Your task to perform on an android device: open a bookmark in the chrome app Image 0: 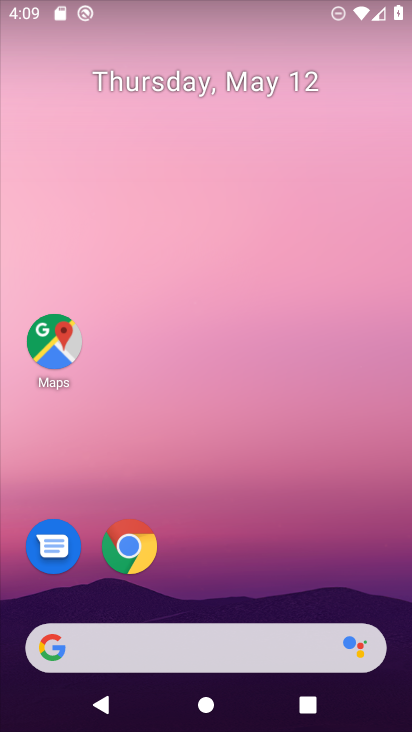
Step 0: drag from (227, 625) to (255, 216)
Your task to perform on an android device: open a bookmark in the chrome app Image 1: 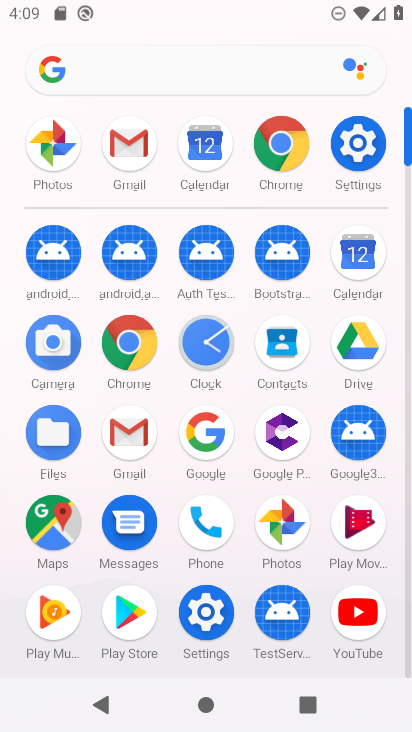
Step 1: click (281, 124)
Your task to perform on an android device: open a bookmark in the chrome app Image 2: 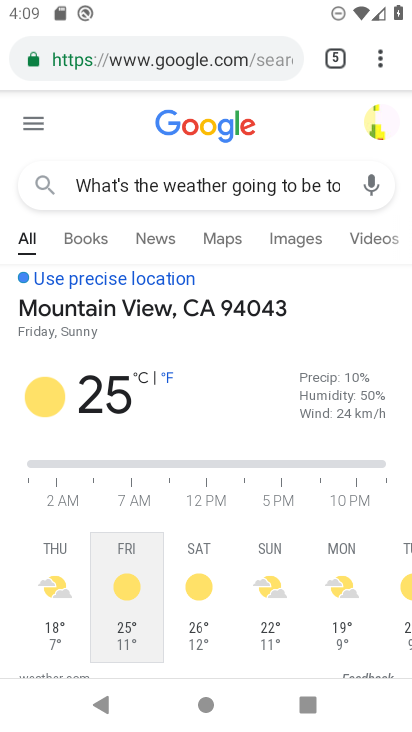
Step 2: click (367, 57)
Your task to perform on an android device: open a bookmark in the chrome app Image 3: 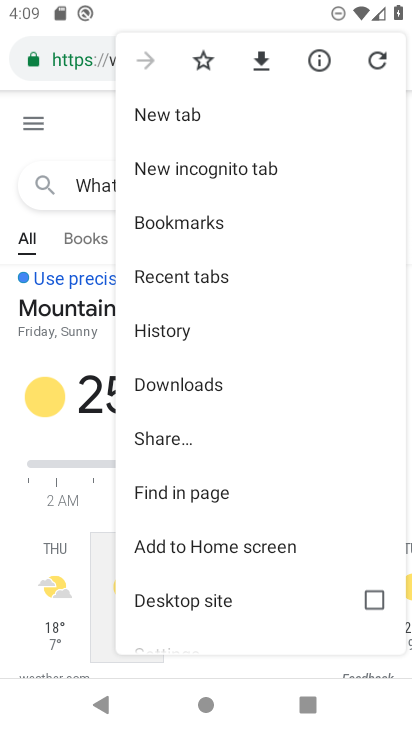
Step 3: click (191, 230)
Your task to perform on an android device: open a bookmark in the chrome app Image 4: 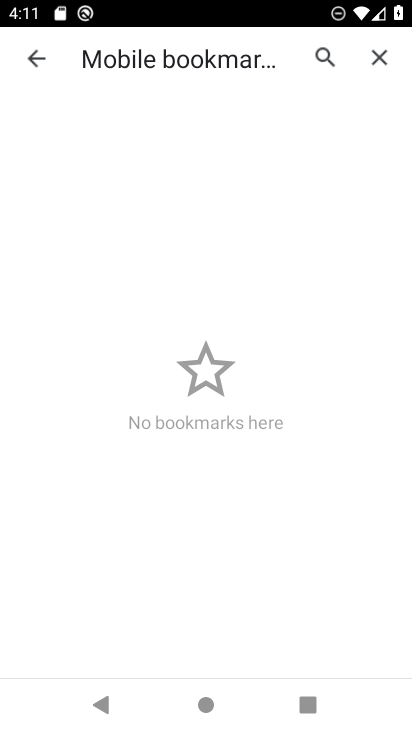
Step 4: task complete